Your task to perform on an android device: open chrome and create a bookmark for the current page Image 0: 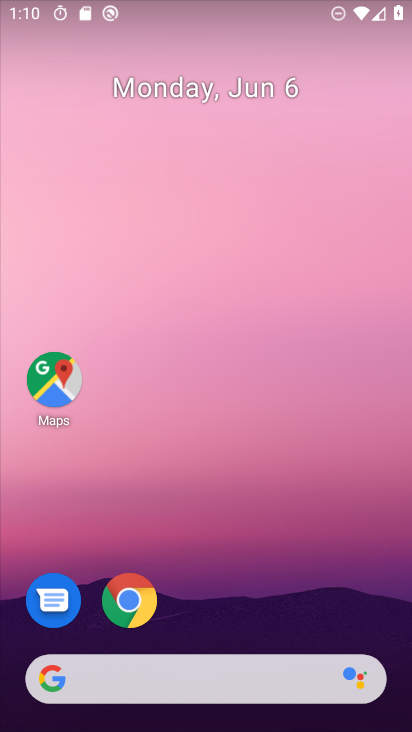
Step 0: click (117, 597)
Your task to perform on an android device: open chrome and create a bookmark for the current page Image 1: 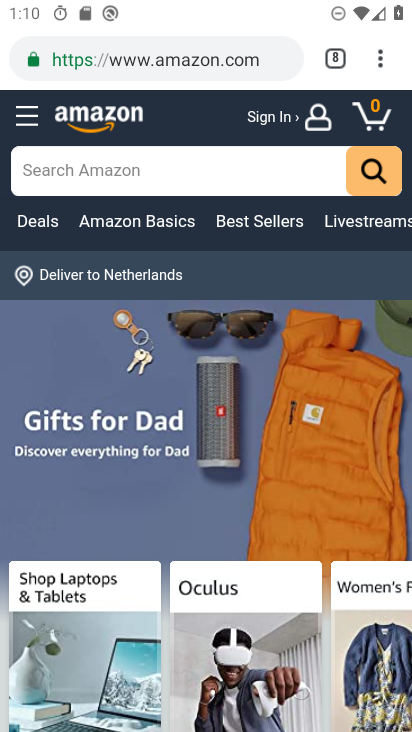
Step 1: click (378, 51)
Your task to perform on an android device: open chrome and create a bookmark for the current page Image 2: 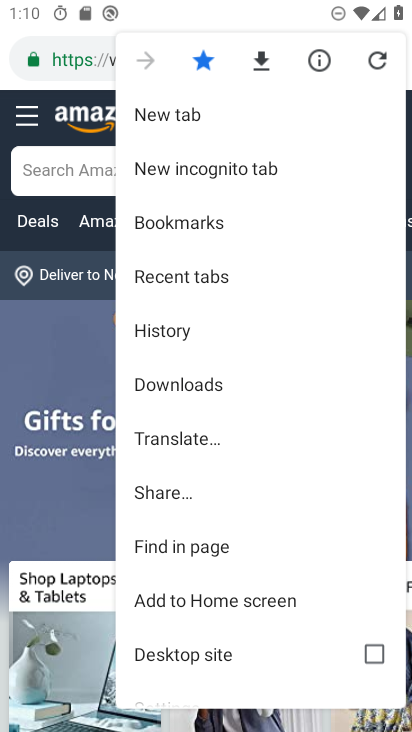
Step 2: click (202, 65)
Your task to perform on an android device: open chrome and create a bookmark for the current page Image 3: 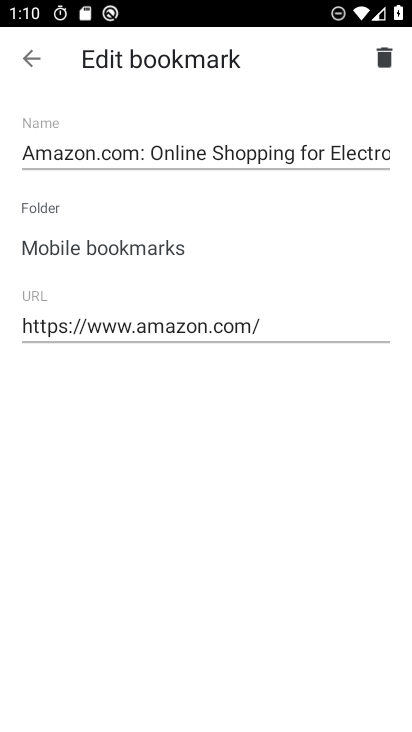
Step 3: click (381, 68)
Your task to perform on an android device: open chrome and create a bookmark for the current page Image 4: 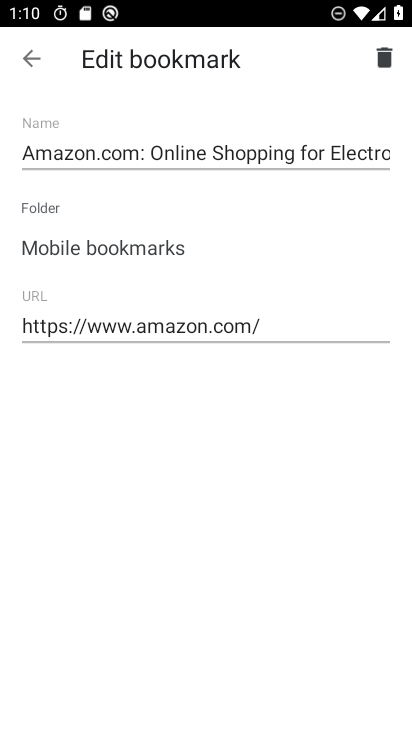
Step 4: click (26, 62)
Your task to perform on an android device: open chrome and create a bookmark for the current page Image 5: 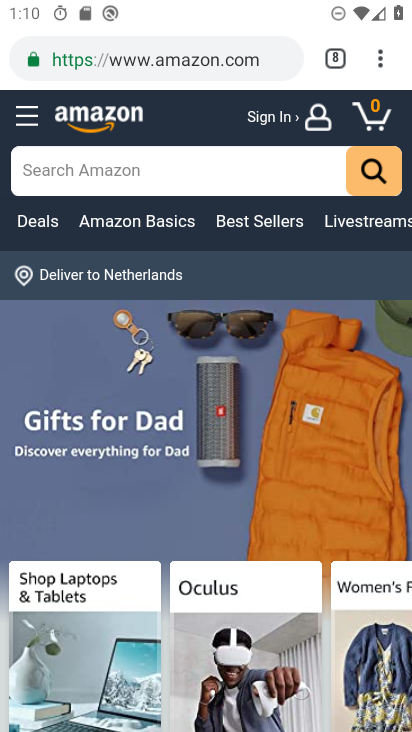
Step 5: click (384, 63)
Your task to perform on an android device: open chrome and create a bookmark for the current page Image 6: 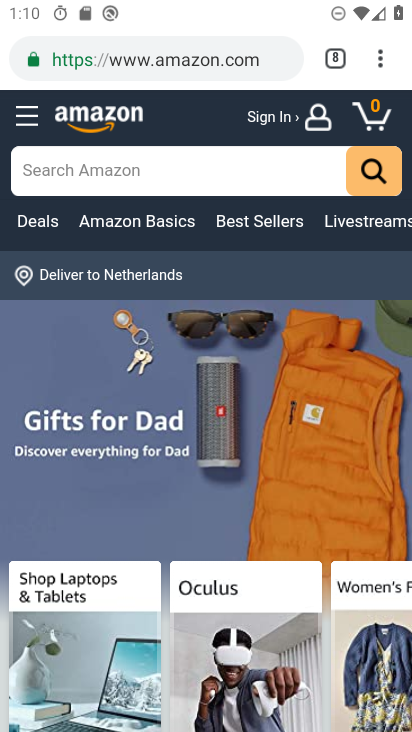
Step 6: task complete